Your task to perform on an android device: set the timer Image 0: 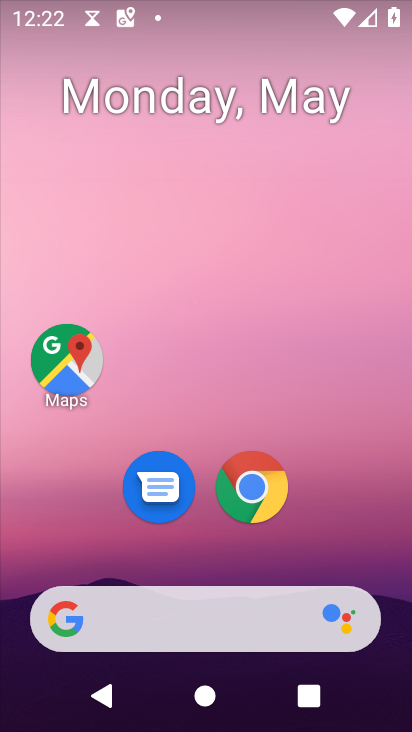
Step 0: drag from (198, 575) to (235, 6)
Your task to perform on an android device: set the timer Image 1: 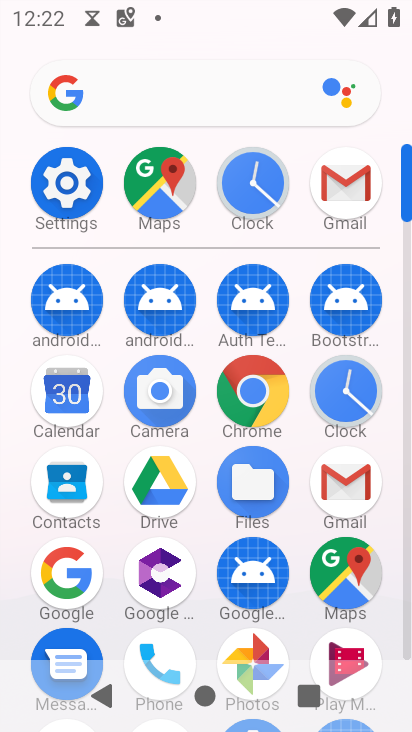
Step 1: click (345, 389)
Your task to perform on an android device: set the timer Image 2: 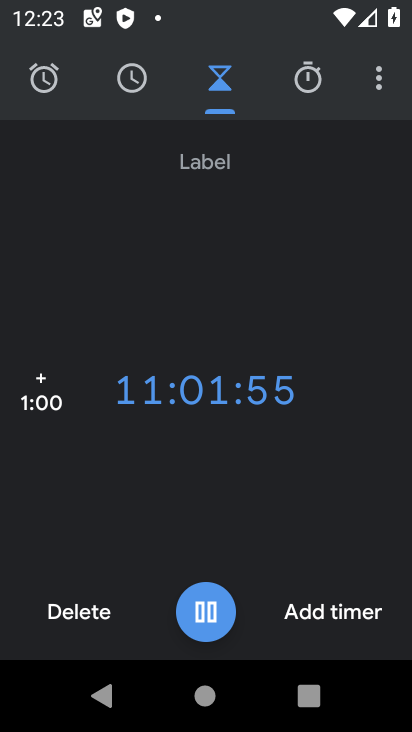
Step 2: click (326, 610)
Your task to perform on an android device: set the timer Image 3: 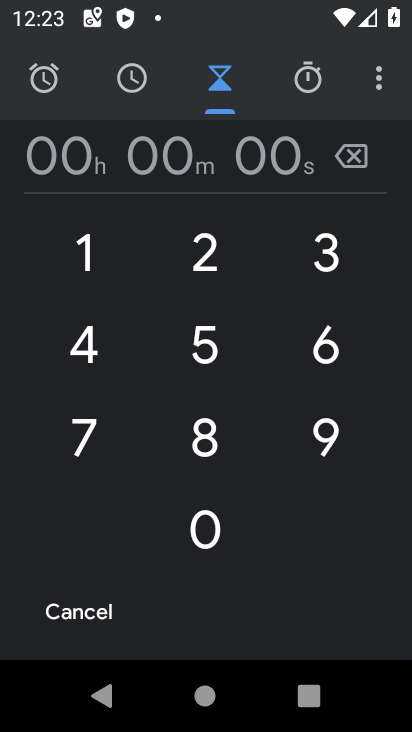
Step 3: click (184, 435)
Your task to perform on an android device: set the timer Image 4: 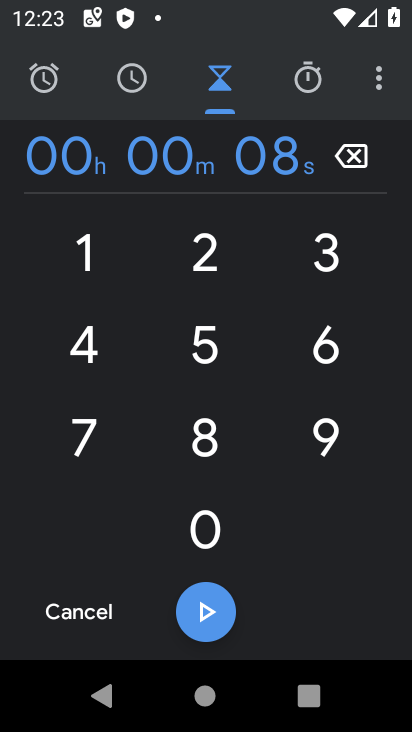
Step 4: click (185, 435)
Your task to perform on an android device: set the timer Image 5: 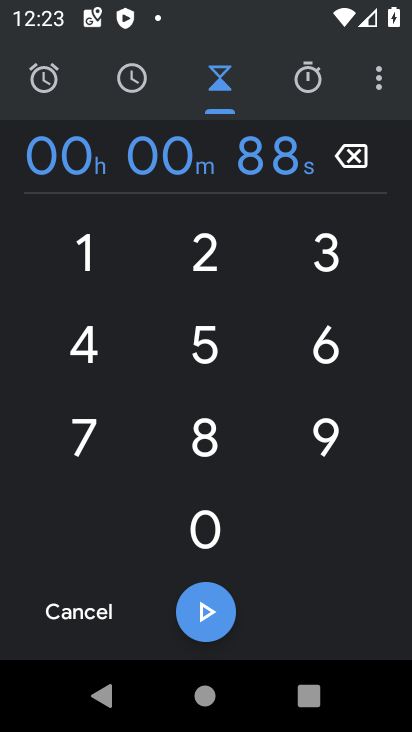
Step 5: click (186, 435)
Your task to perform on an android device: set the timer Image 6: 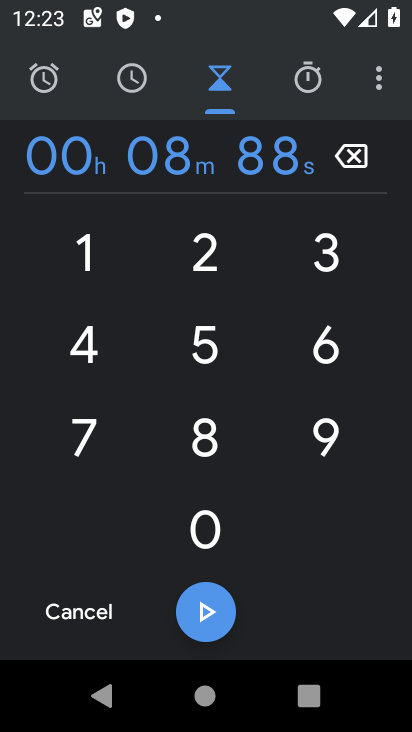
Step 6: click (186, 435)
Your task to perform on an android device: set the timer Image 7: 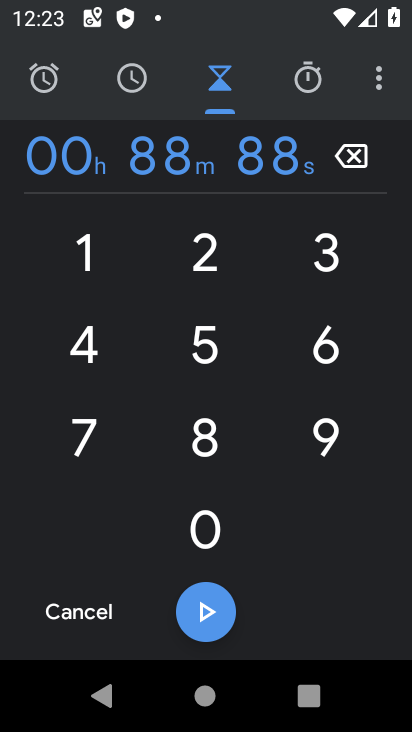
Step 7: click (186, 435)
Your task to perform on an android device: set the timer Image 8: 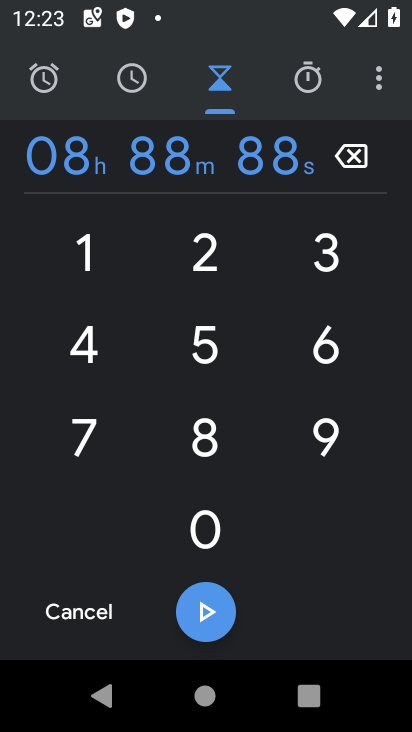
Step 8: click (186, 435)
Your task to perform on an android device: set the timer Image 9: 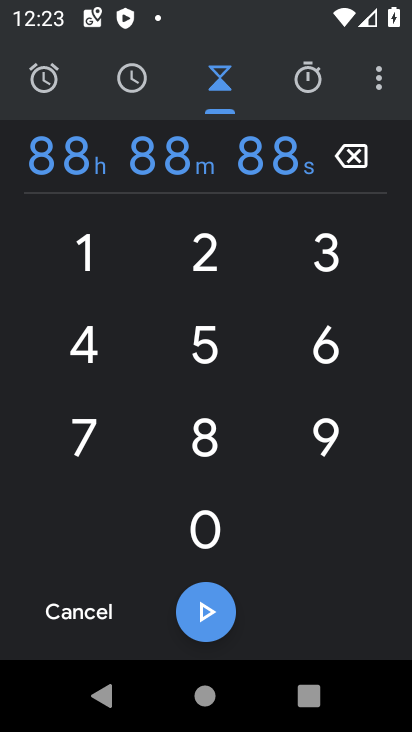
Step 9: click (203, 615)
Your task to perform on an android device: set the timer Image 10: 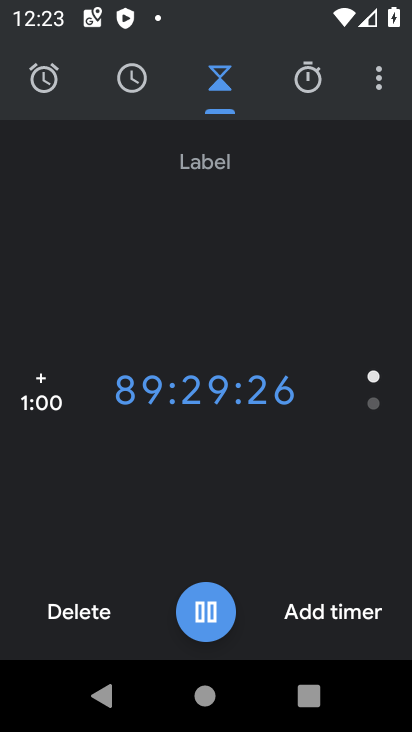
Step 10: task complete